Your task to perform on an android device: Empty the shopping cart on bestbuy. Search for "asus zenbook" on bestbuy, select the first entry, add it to the cart, then select checkout. Image 0: 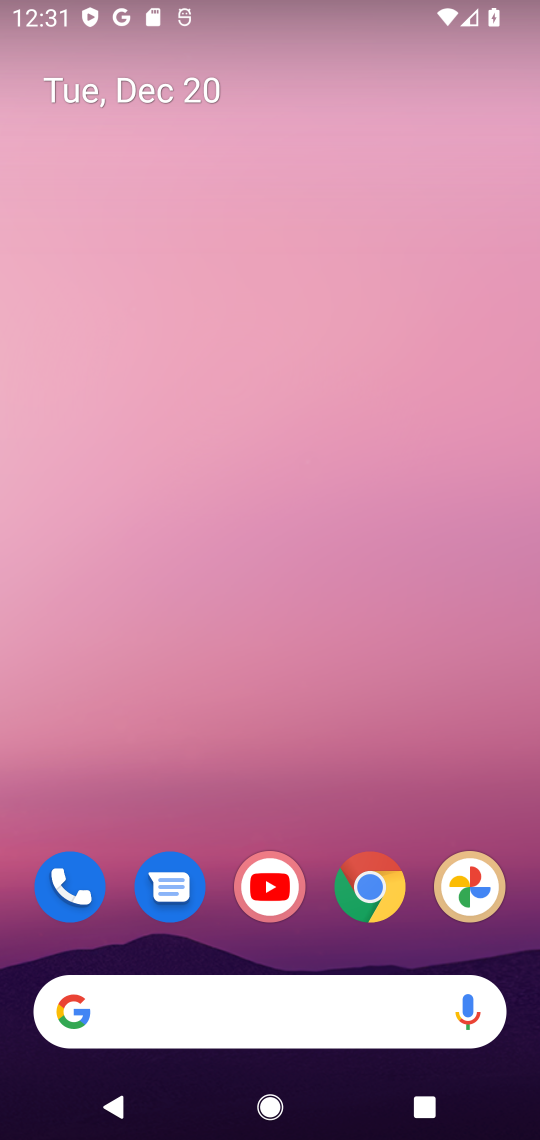
Step 0: click (383, 896)
Your task to perform on an android device: Empty the shopping cart on bestbuy. Search for "asus zenbook" on bestbuy, select the first entry, add it to the cart, then select checkout. Image 1: 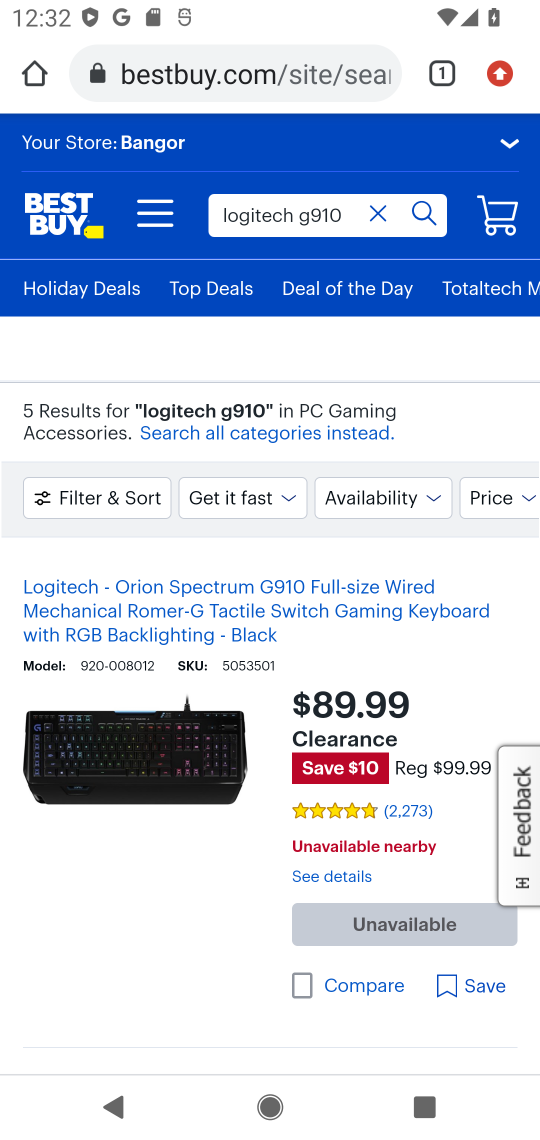
Step 1: click (383, 210)
Your task to perform on an android device: Empty the shopping cart on bestbuy. Search for "asus zenbook" on bestbuy, select the first entry, add it to the cart, then select checkout. Image 2: 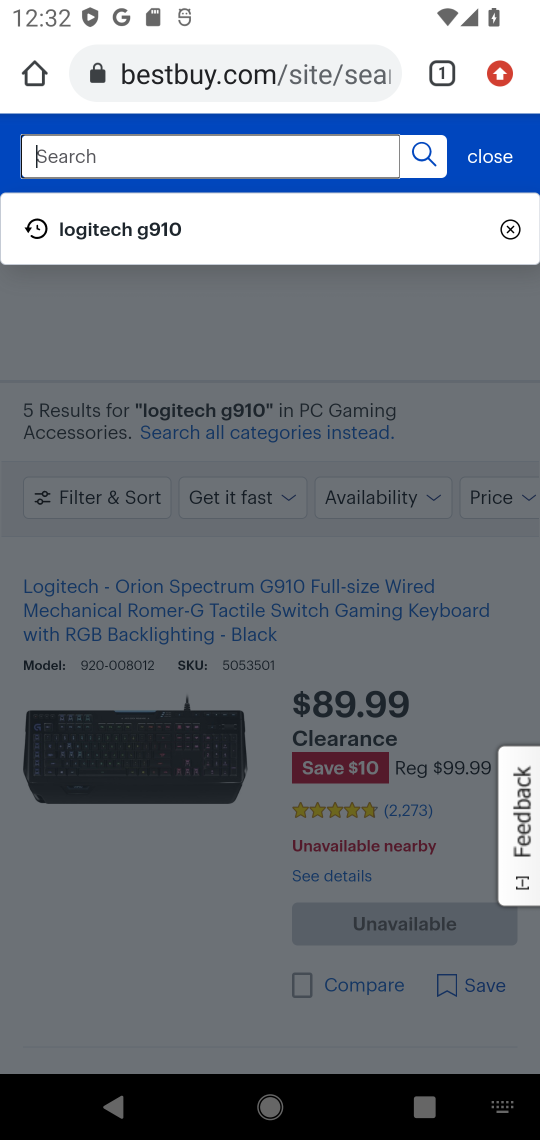
Step 2: type "asus zenbook"
Your task to perform on an android device: Empty the shopping cart on bestbuy. Search for "asus zenbook" on bestbuy, select the first entry, add it to the cart, then select checkout. Image 3: 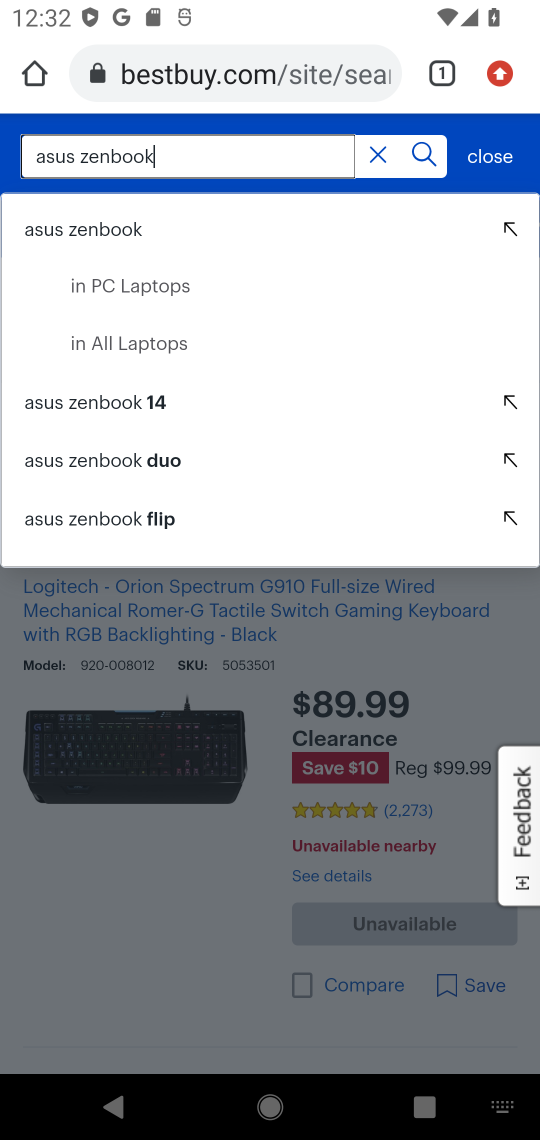
Step 3: click (93, 227)
Your task to perform on an android device: Empty the shopping cart on bestbuy. Search for "asus zenbook" on bestbuy, select the first entry, add it to the cart, then select checkout. Image 4: 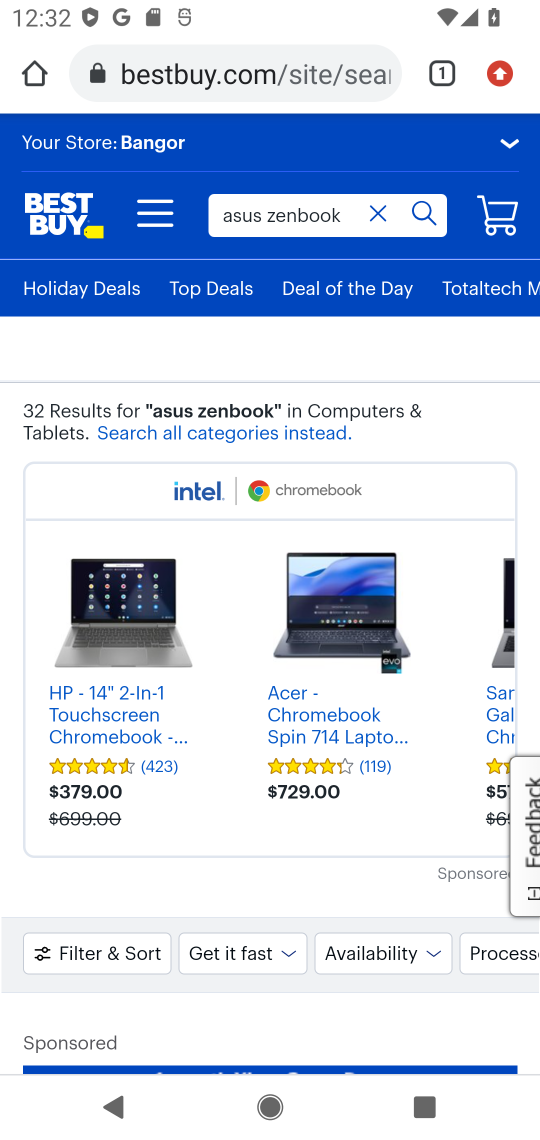
Step 4: drag from (246, 933) to (242, 398)
Your task to perform on an android device: Empty the shopping cart on bestbuy. Search for "asus zenbook" on bestbuy, select the first entry, add it to the cart, then select checkout. Image 5: 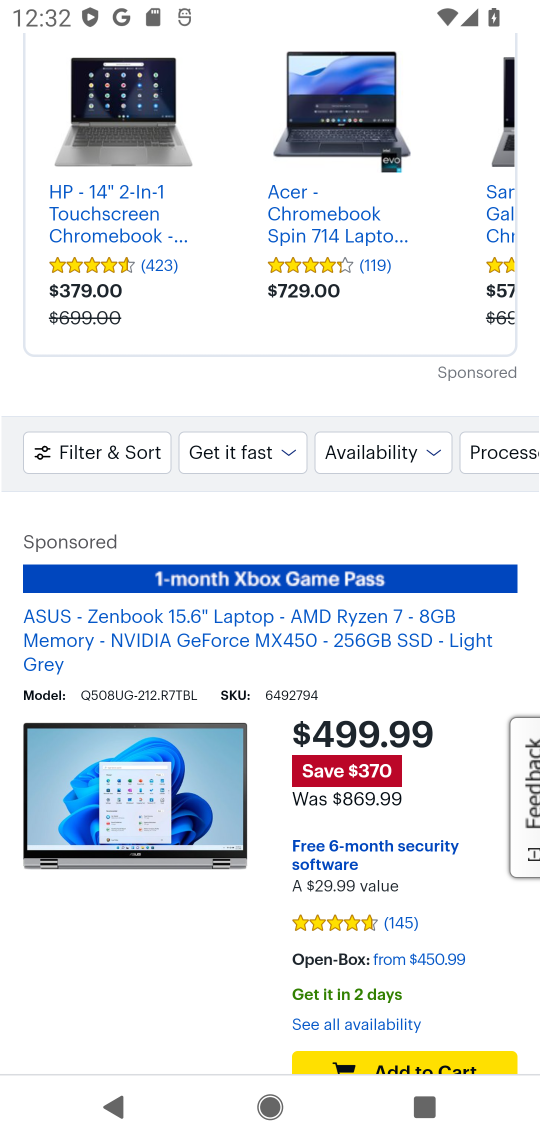
Step 5: drag from (440, 944) to (407, 722)
Your task to perform on an android device: Empty the shopping cart on bestbuy. Search for "asus zenbook" on bestbuy, select the first entry, add it to the cart, then select checkout. Image 6: 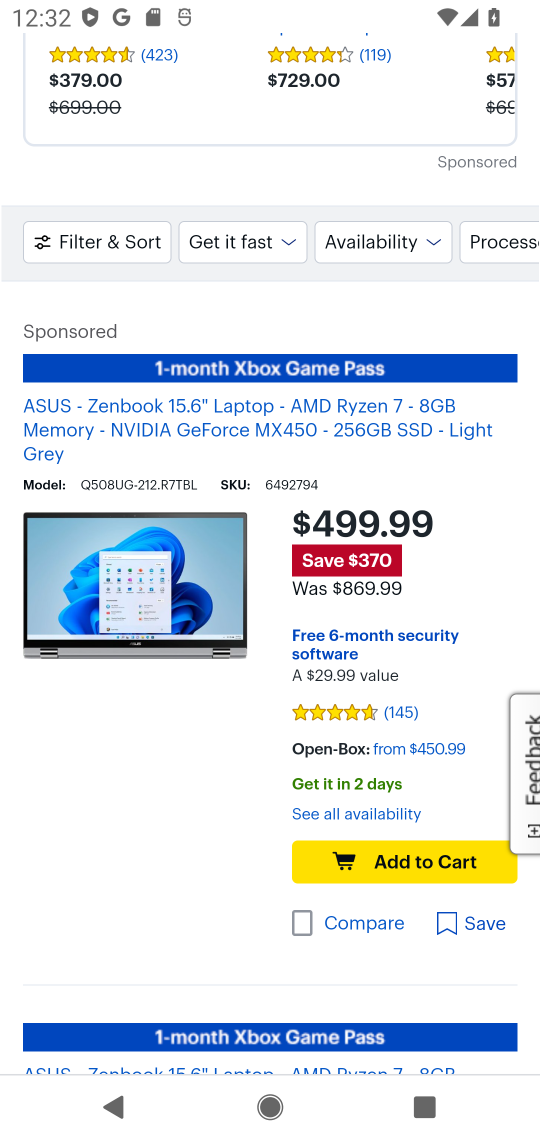
Step 6: click (432, 1018)
Your task to perform on an android device: Empty the shopping cart on bestbuy. Search for "asus zenbook" on bestbuy, select the first entry, add it to the cart, then select checkout. Image 7: 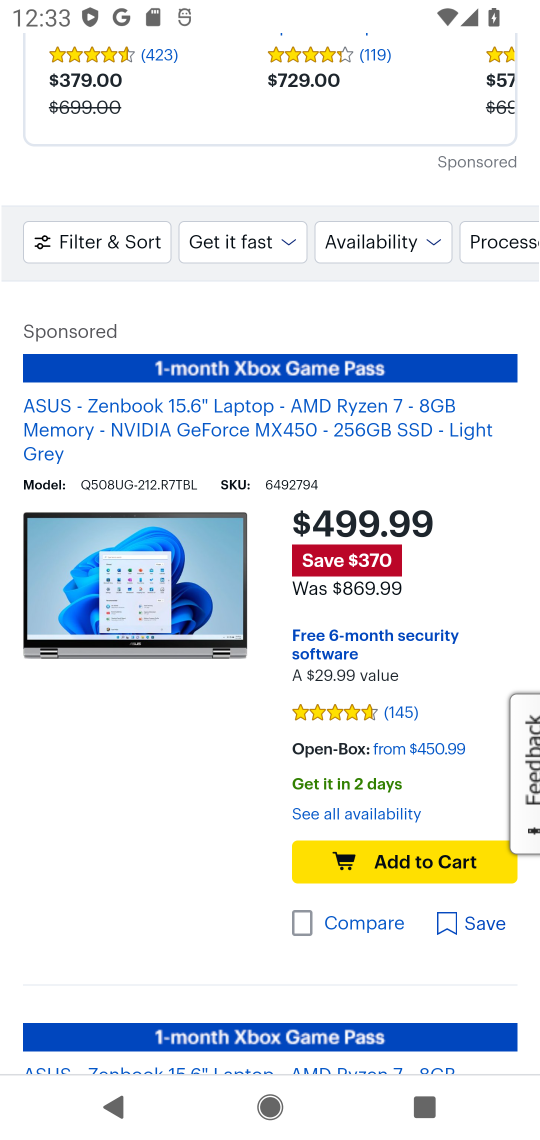
Step 7: click (414, 861)
Your task to perform on an android device: Empty the shopping cart on bestbuy. Search for "asus zenbook" on bestbuy, select the first entry, add it to the cart, then select checkout. Image 8: 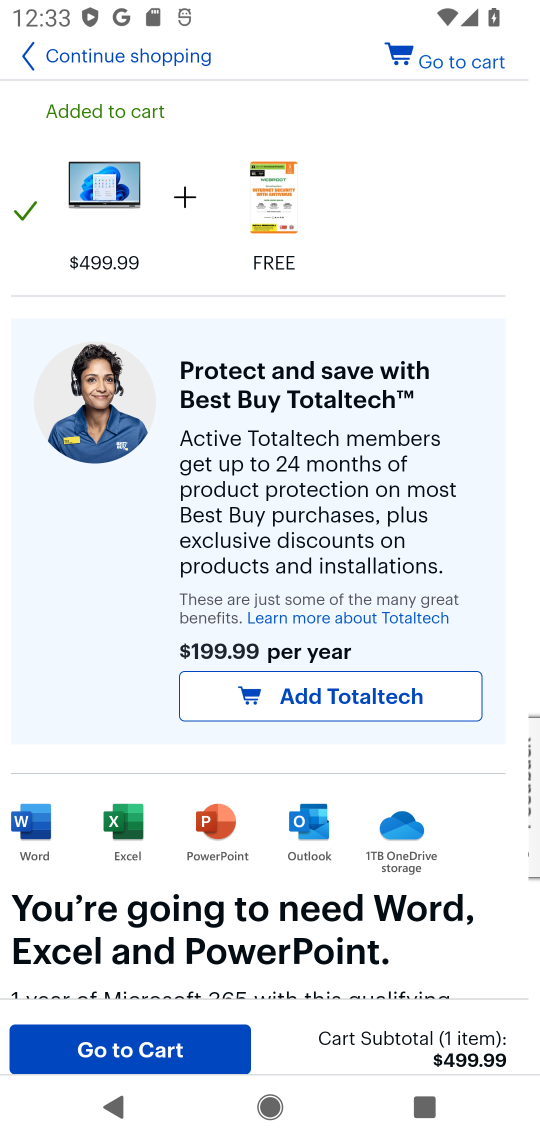
Step 8: task complete